Your task to perform on an android device: Open maps Image 0: 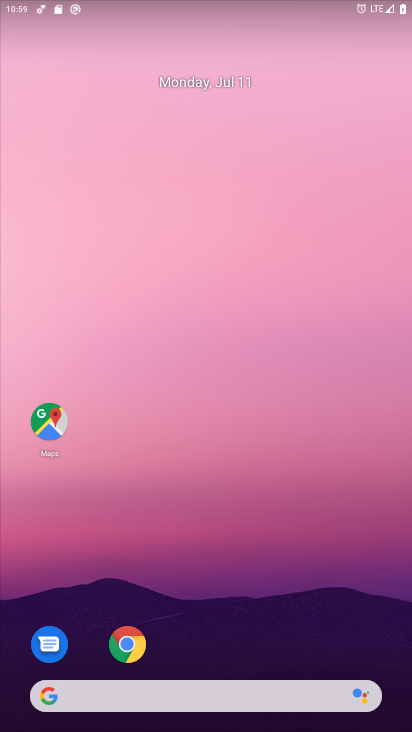
Step 0: drag from (208, 661) to (218, 224)
Your task to perform on an android device: Open maps Image 1: 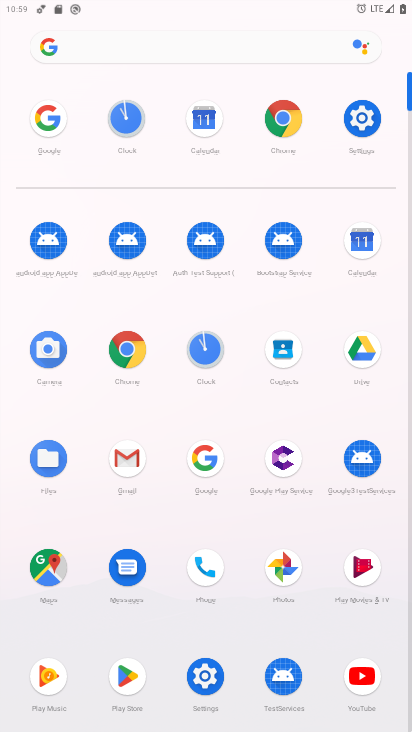
Step 1: click (51, 554)
Your task to perform on an android device: Open maps Image 2: 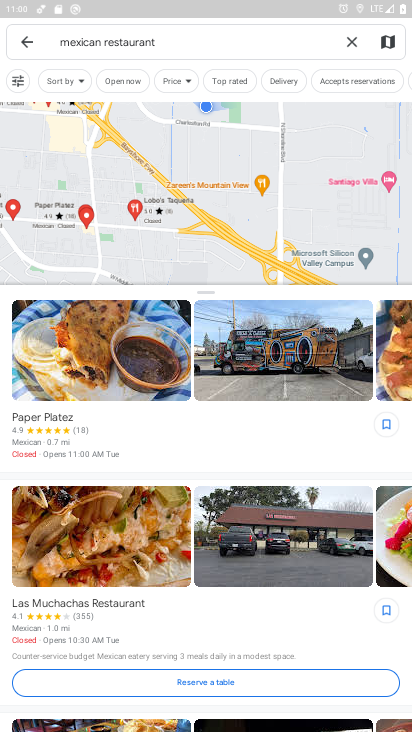
Step 2: click (349, 38)
Your task to perform on an android device: Open maps Image 3: 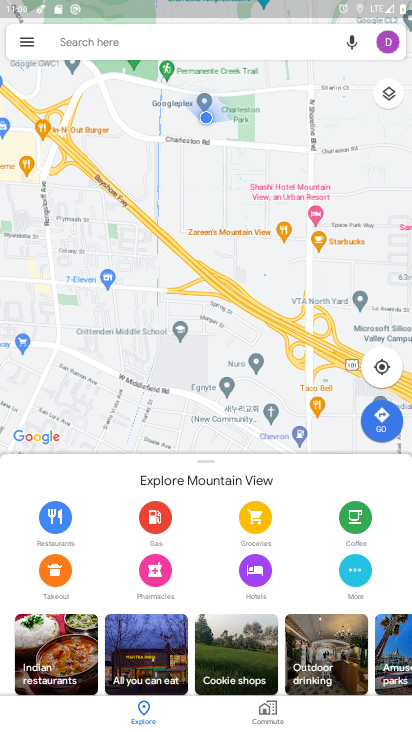
Step 3: task complete